Your task to perform on an android device: turn off data saver in the chrome app Image 0: 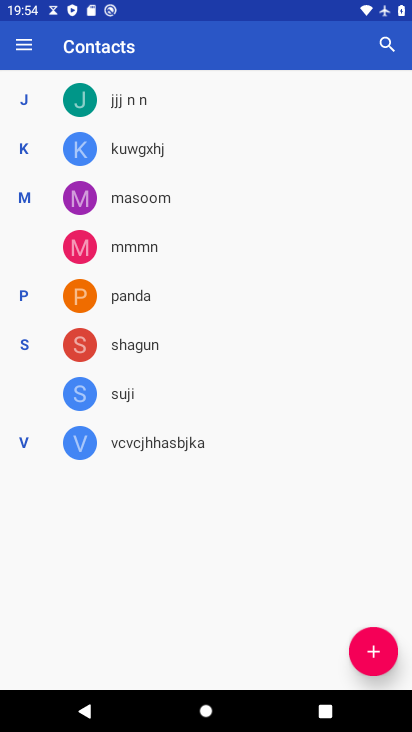
Step 0: press enter
Your task to perform on an android device: turn off data saver in the chrome app Image 1: 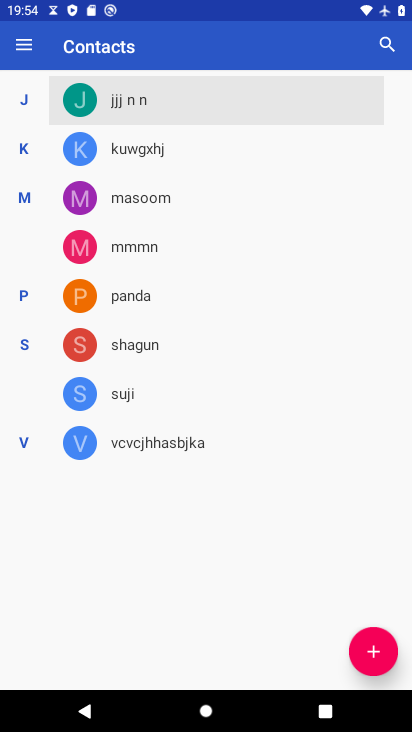
Step 1: press home button
Your task to perform on an android device: turn off data saver in the chrome app Image 2: 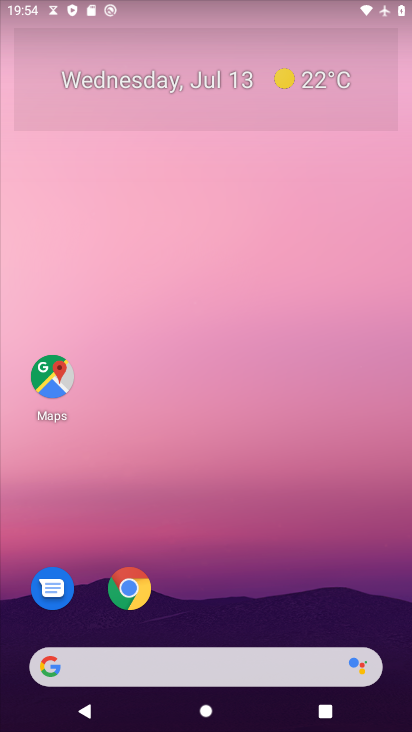
Step 2: click (136, 577)
Your task to perform on an android device: turn off data saver in the chrome app Image 3: 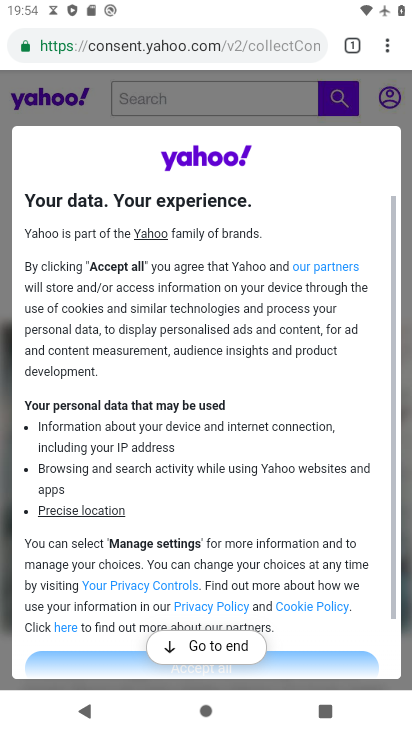
Step 3: click (392, 38)
Your task to perform on an android device: turn off data saver in the chrome app Image 4: 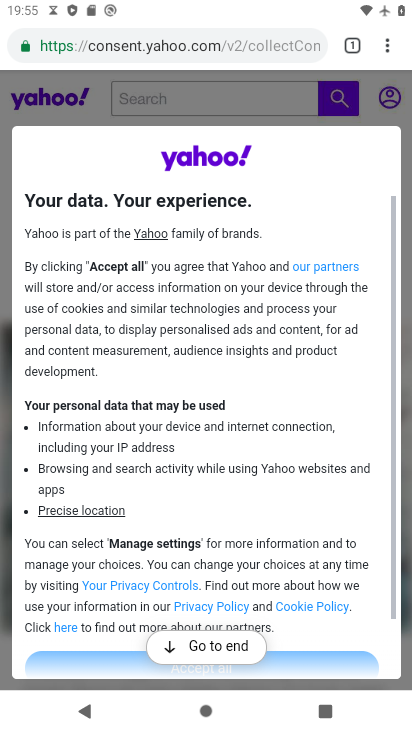
Step 4: click (391, 35)
Your task to perform on an android device: turn off data saver in the chrome app Image 5: 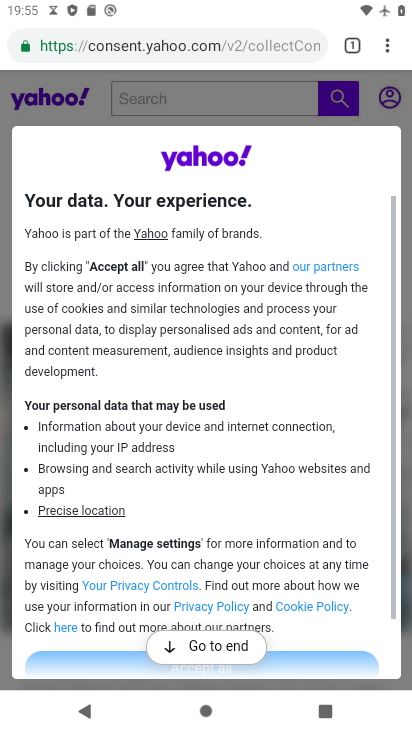
Step 5: click (391, 34)
Your task to perform on an android device: turn off data saver in the chrome app Image 6: 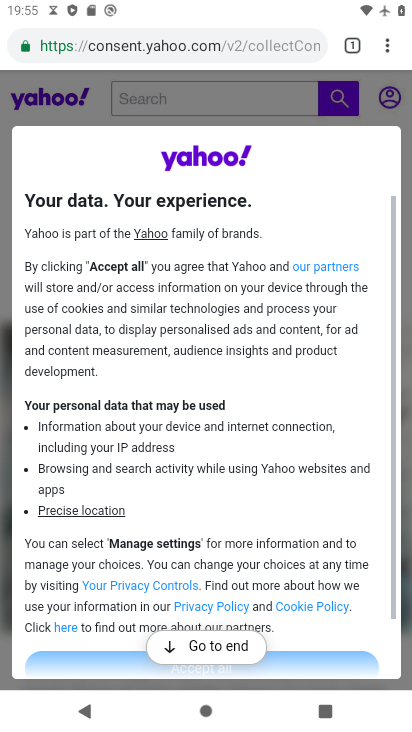
Step 6: click (384, 37)
Your task to perform on an android device: turn off data saver in the chrome app Image 7: 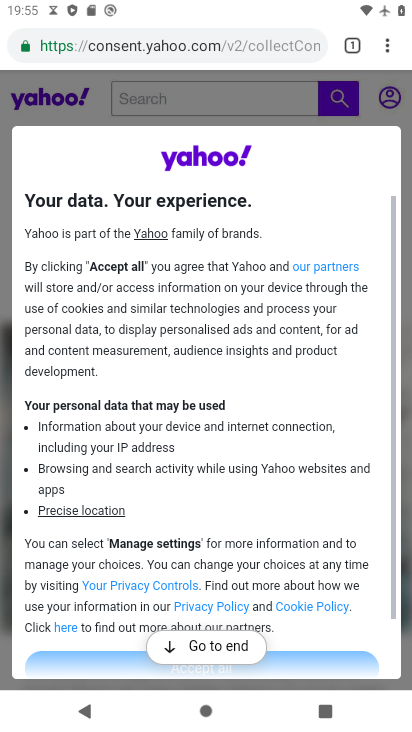
Step 7: click (389, 37)
Your task to perform on an android device: turn off data saver in the chrome app Image 8: 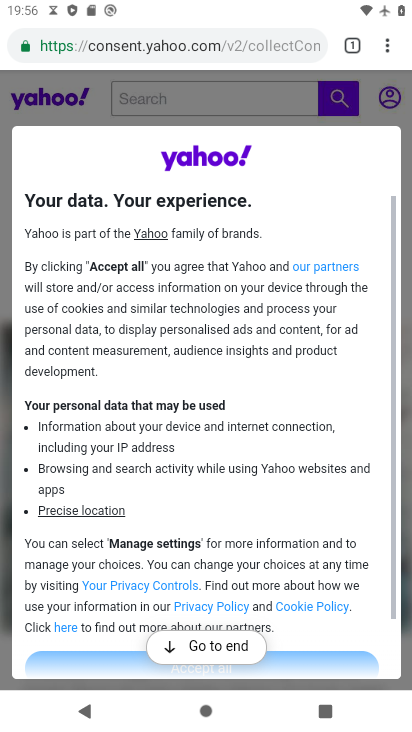
Step 8: click (382, 47)
Your task to perform on an android device: turn off data saver in the chrome app Image 9: 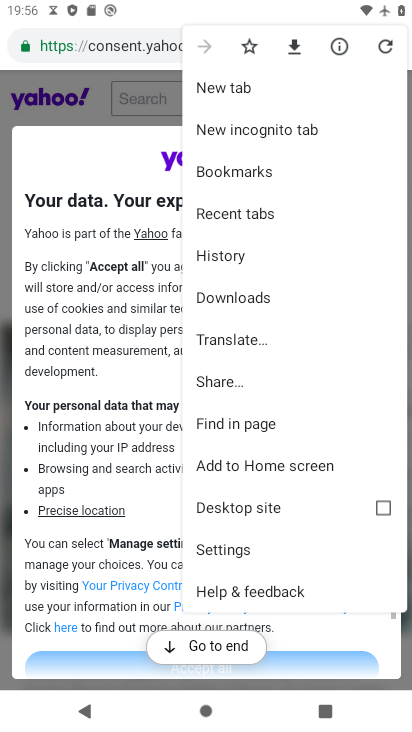
Step 9: click (220, 546)
Your task to perform on an android device: turn off data saver in the chrome app Image 10: 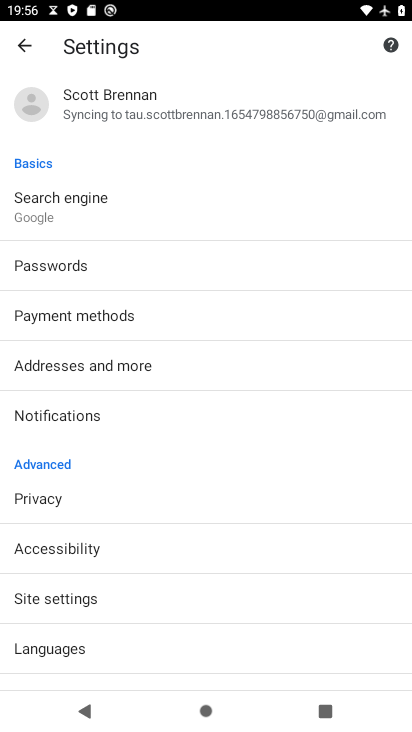
Step 10: drag from (146, 602) to (70, 364)
Your task to perform on an android device: turn off data saver in the chrome app Image 11: 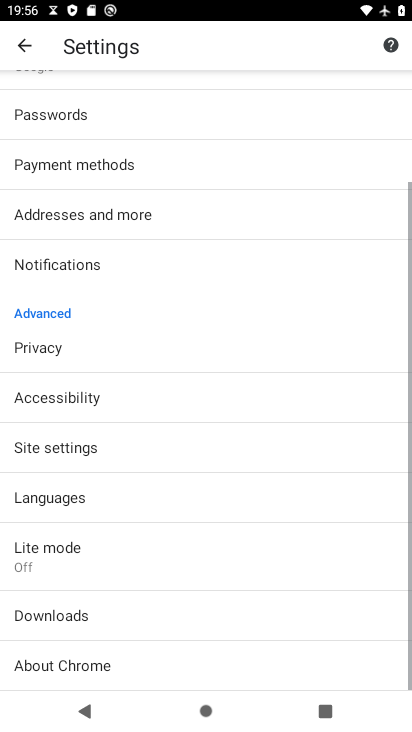
Step 11: click (90, 555)
Your task to perform on an android device: turn off data saver in the chrome app Image 12: 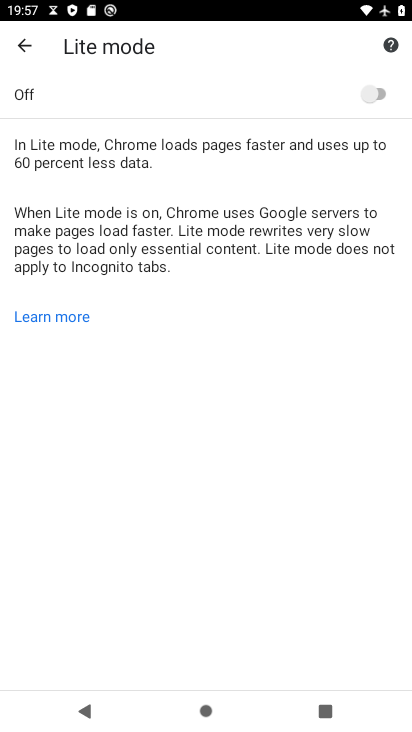
Step 12: task complete